Your task to perform on an android device: see creations saved in the google photos Image 0: 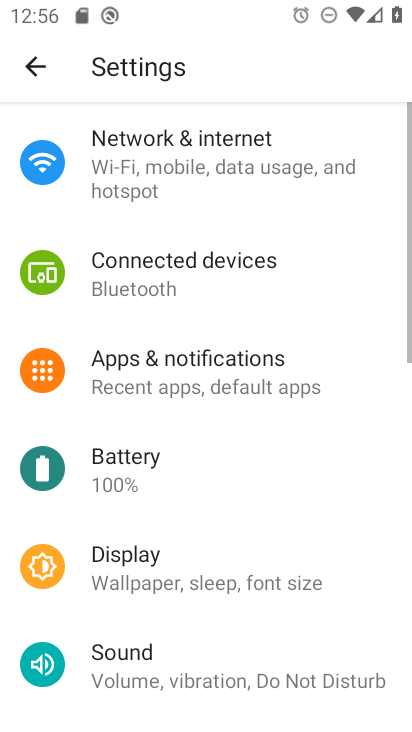
Step 0: press home button
Your task to perform on an android device: see creations saved in the google photos Image 1: 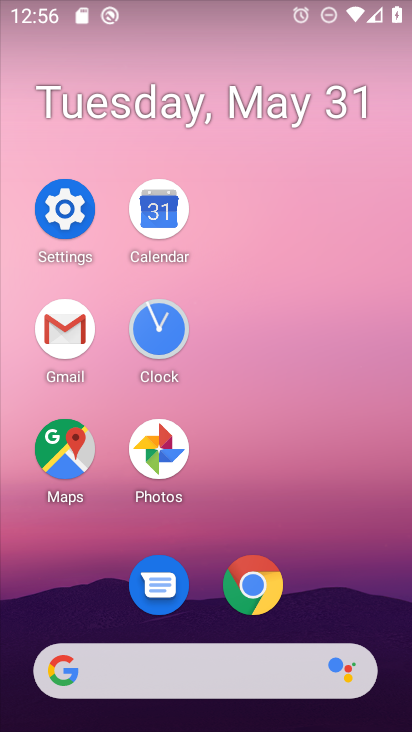
Step 1: click (188, 456)
Your task to perform on an android device: see creations saved in the google photos Image 2: 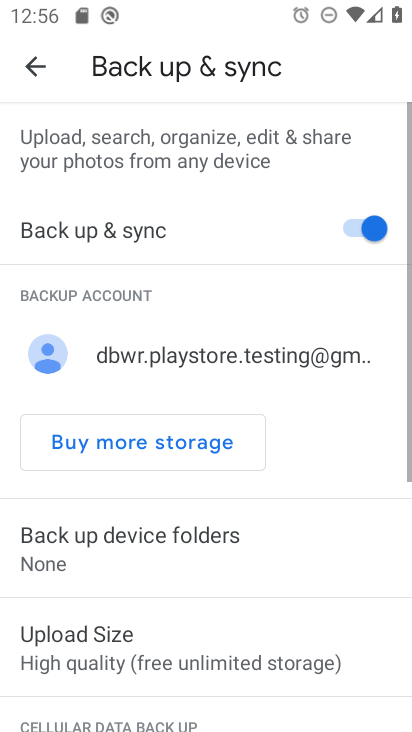
Step 2: click (32, 81)
Your task to perform on an android device: see creations saved in the google photos Image 3: 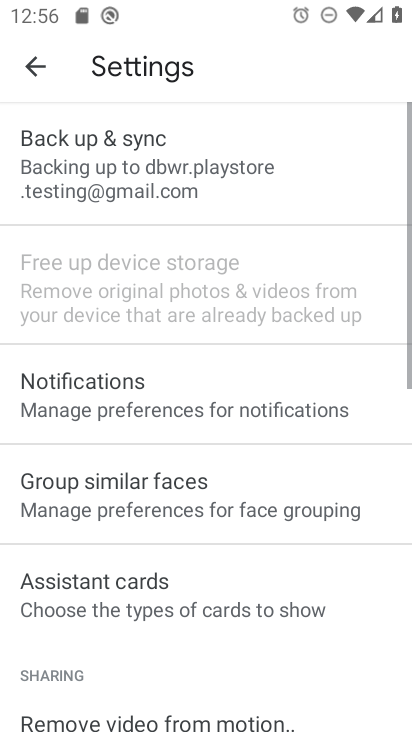
Step 3: click (36, 78)
Your task to perform on an android device: see creations saved in the google photos Image 4: 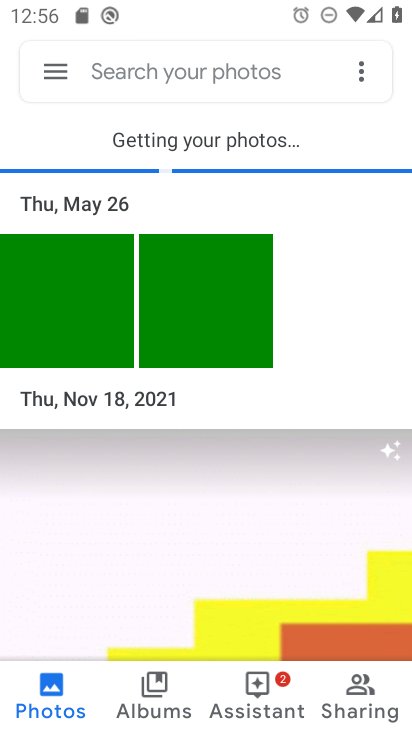
Step 4: click (268, 682)
Your task to perform on an android device: see creations saved in the google photos Image 5: 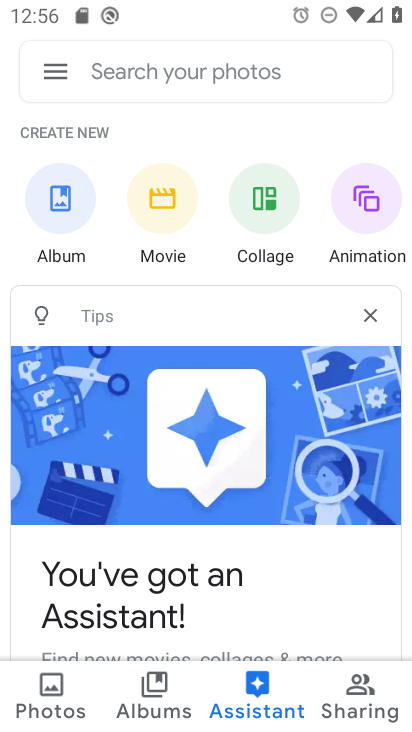
Step 5: task complete